Your task to perform on an android device: check android version Image 0: 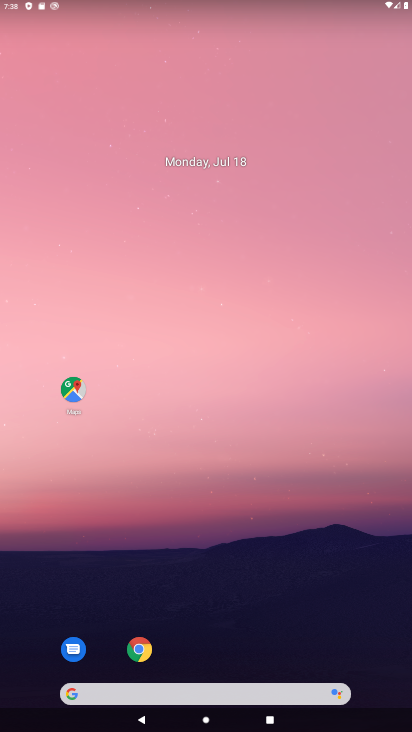
Step 0: drag from (290, 553) to (207, 98)
Your task to perform on an android device: check android version Image 1: 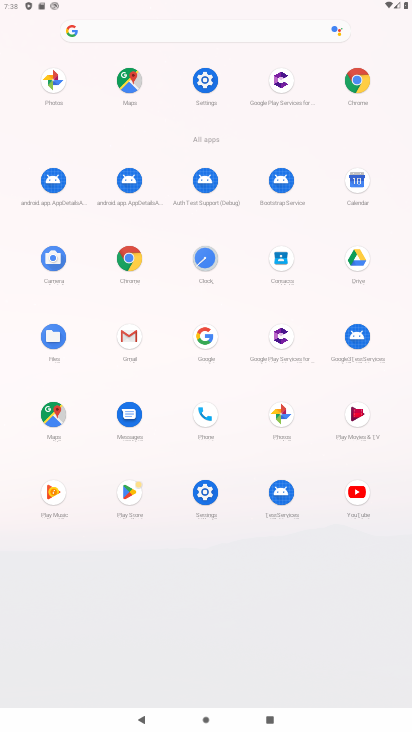
Step 1: click (208, 77)
Your task to perform on an android device: check android version Image 2: 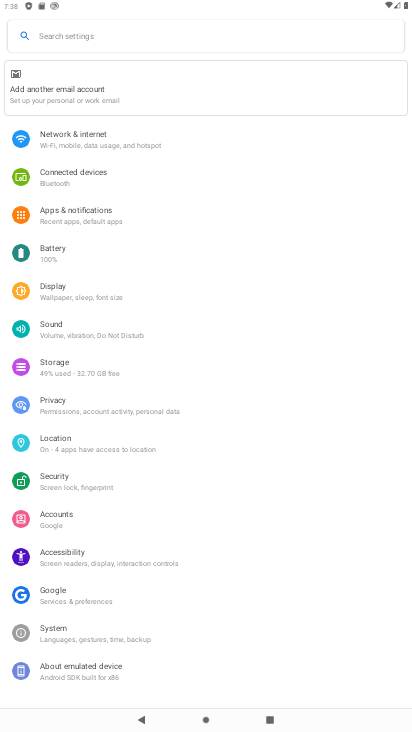
Step 2: drag from (257, 613) to (272, 110)
Your task to perform on an android device: check android version Image 3: 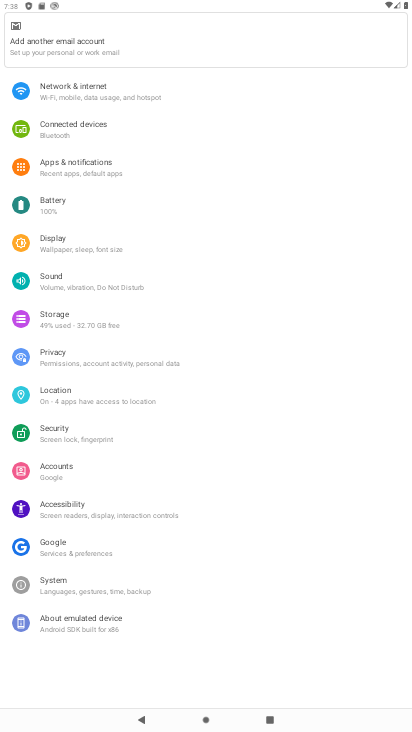
Step 3: click (52, 626)
Your task to perform on an android device: check android version Image 4: 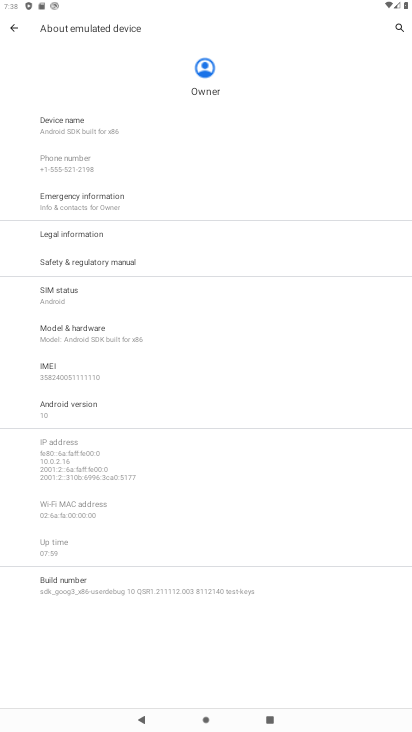
Step 4: click (60, 424)
Your task to perform on an android device: check android version Image 5: 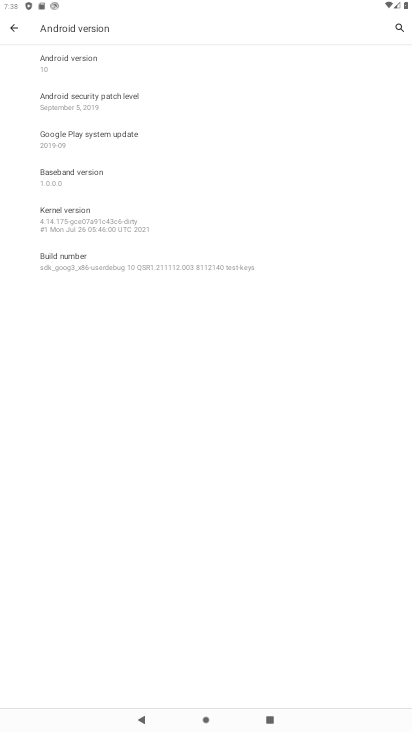
Step 5: task complete